Your task to perform on an android device: Open the calendar and show me this week's events Image 0: 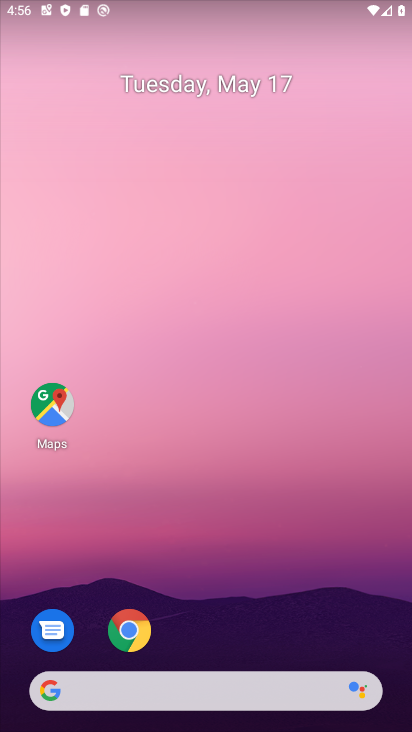
Step 0: drag from (303, 531) to (316, 83)
Your task to perform on an android device: Open the calendar and show me this week's events Image 1: 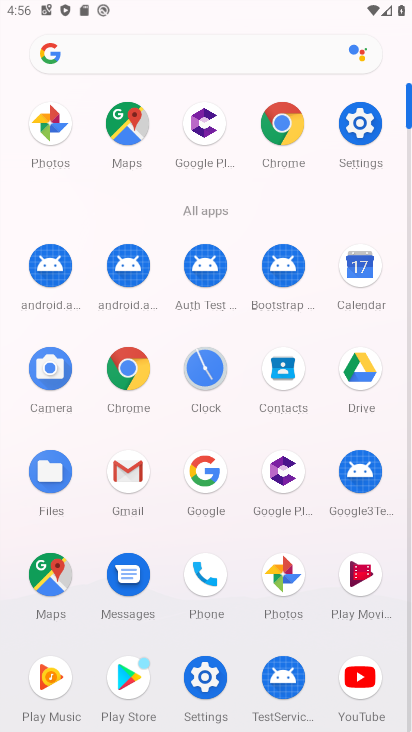
Step 1: click (362, 273)
Your task to perform on an android device: Open the calendar and show me this week's events Image 2: 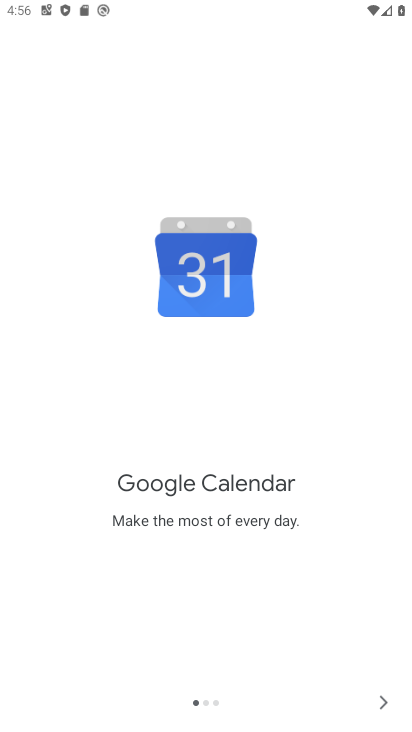
Step 2: click (388, 703)
Your task to perform on an android device: Open the calendar and show me this week's events Image 3: 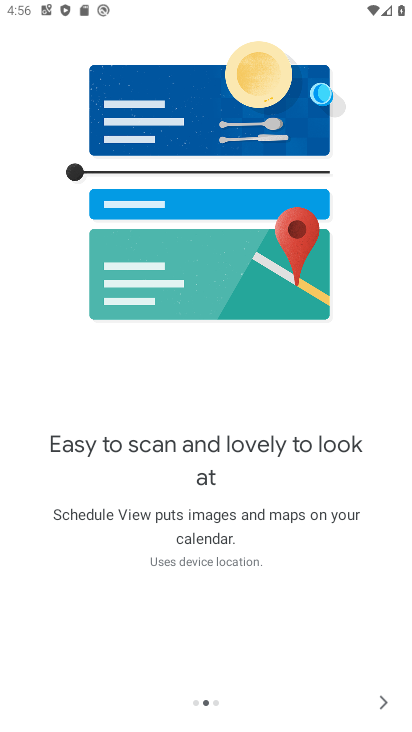
Step 3: click (380, 703)
Your task to perform on an android device: Open the calendar and show me this week's events Image 4: 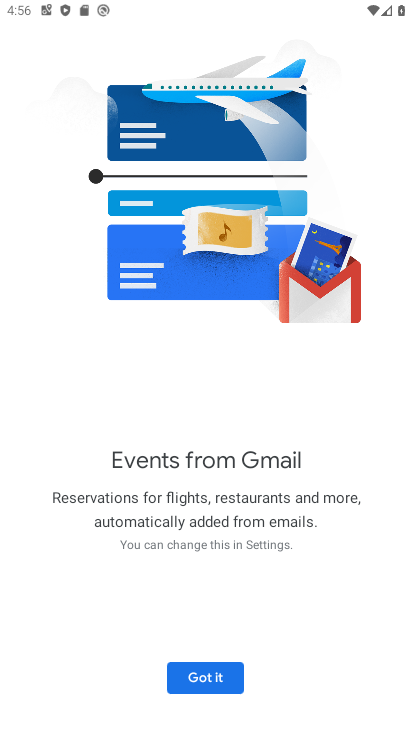
Step 4: click (198, 667)
Your task to perform on an android device: Open the calendar and show me this week's events Image 5: 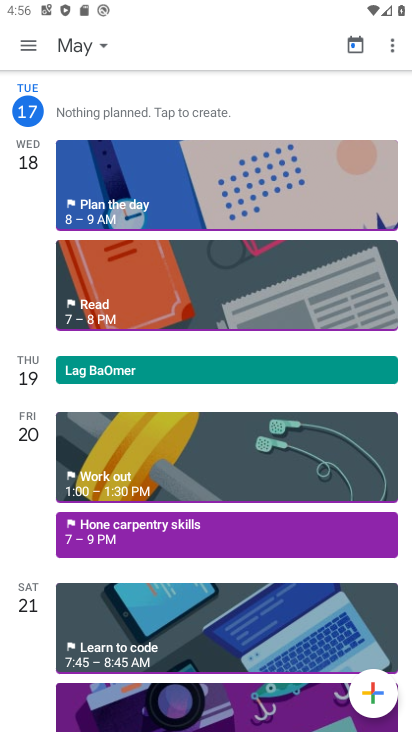
Step 5: click (34, 42)
Your task to perform on an android device: Open the calendar and show me this week's events Image 6: 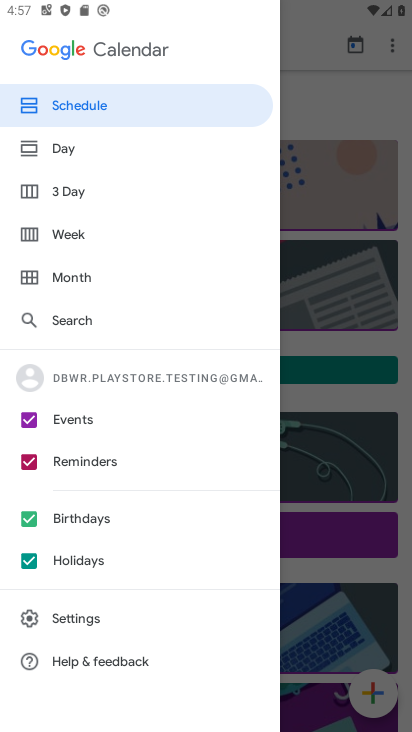
Step 6: click (94, 234)
Your task to perform on an android device: Open the calendar and show me this week's events Image 7: 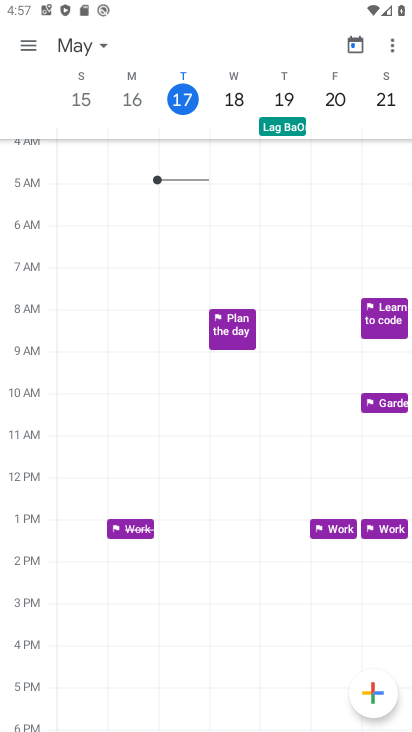
Step 7: task complete